Your task to perform on an android device: turn off smart reply in the gmail app Image 0: 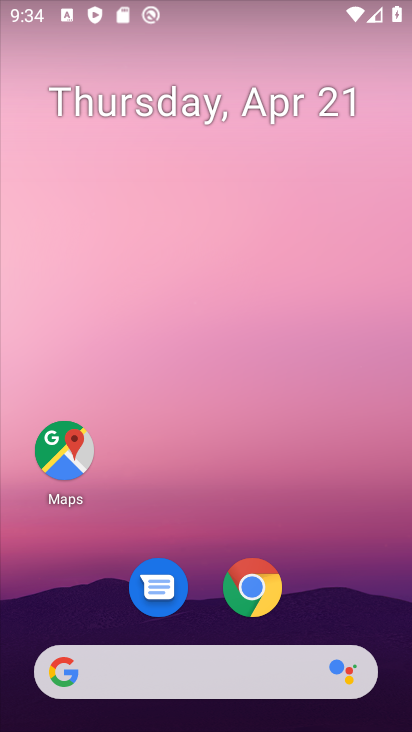
Step 0: drag from (103, 360) to (215, 172)
Your task to perform on an android device: turn off smart reply in the gmail app Image 1: 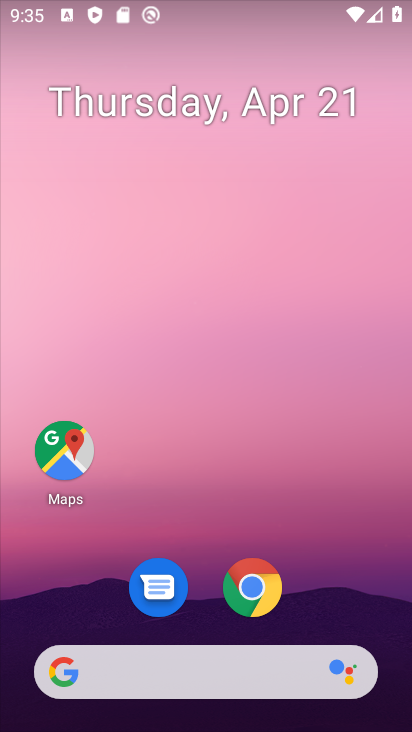
Step 1: drag from (171, 292) to (221, 231)
Your task to perform on an android device: turn off smart reply in the gmail app Image 2: 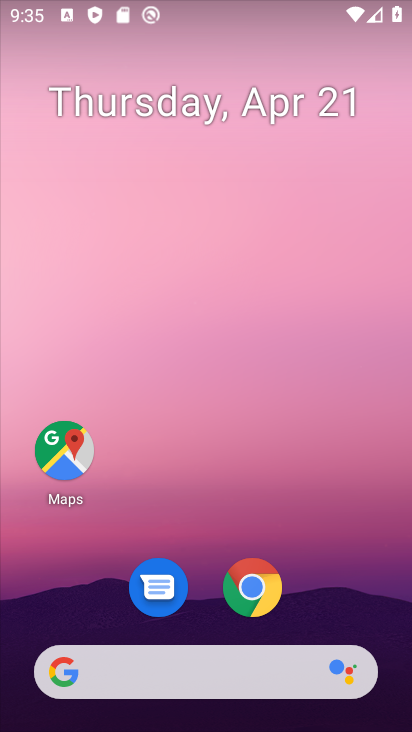
Step 2: drag from (35, 565) to (197, 208)
Your task to perform on an android device: turn off smart reply in the gmail app Image 3: 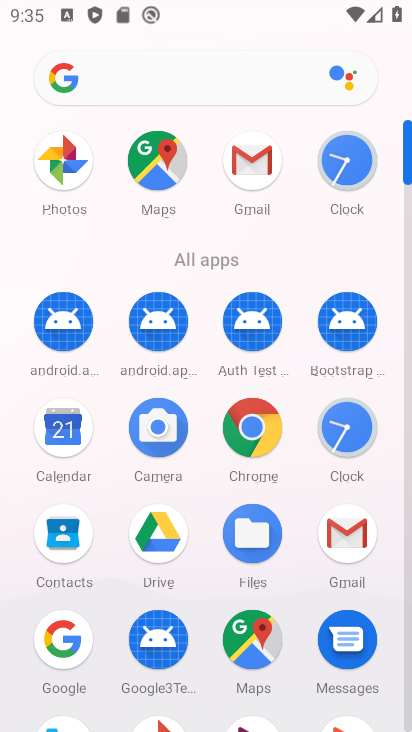
Step 3: click (260, 170)
Your task to perform on an android device: turn off smart reply in the gmail app Image 4: 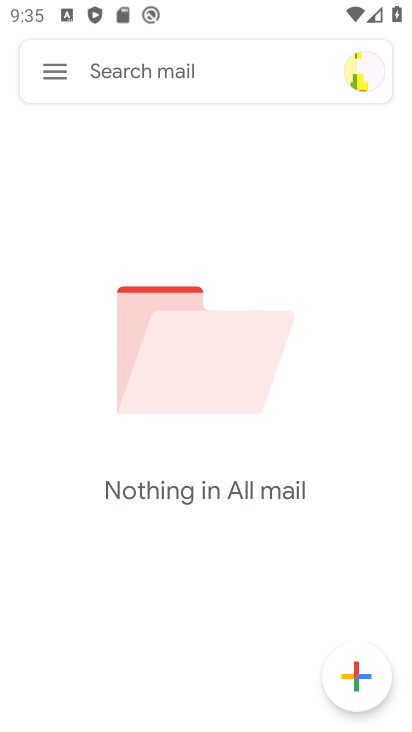
Step 4: click (59, 67)
Your task to perform on an android device: turn off smart reply in the gmail app Image 5: 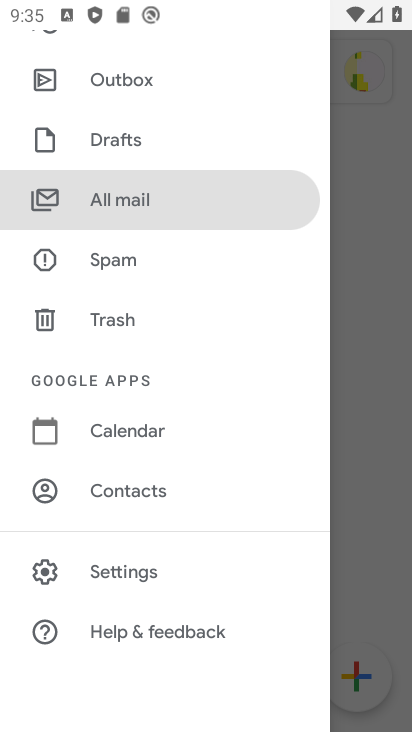
Step 5: click (166, 570)
Your task to perform on an android device: turn off smart reply in the gmail app Image 6: 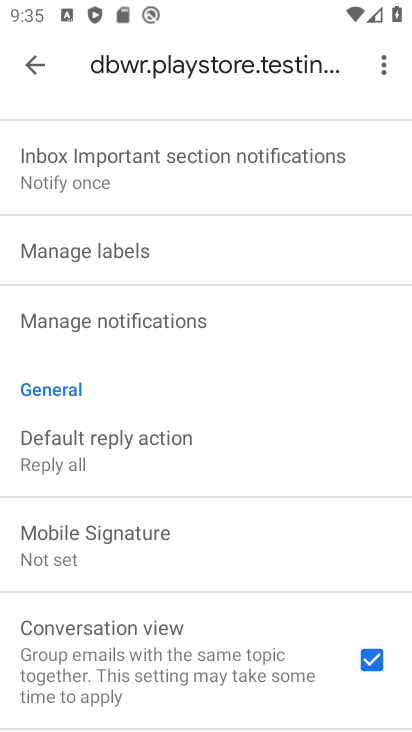
Step 6: drag from (204, 670) to (314, 317)
Your task to perform on an android device: turn off smart reply in the gmail app Image 7: 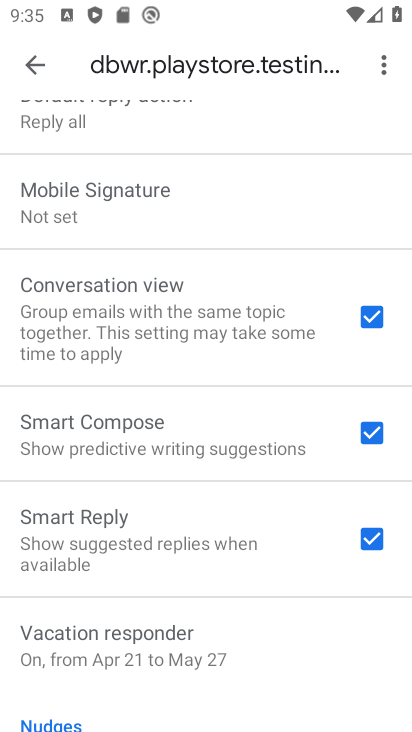
Step 7: click (372, 537)
Your task to perform on an android device: turn off smart reply in the gmail app Image 8: 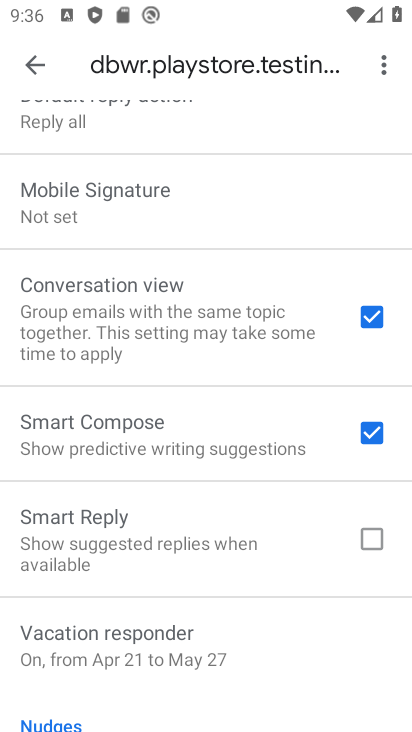
Step 8: task complete